Your task to perform on an android device: Open battery settings Image 0: 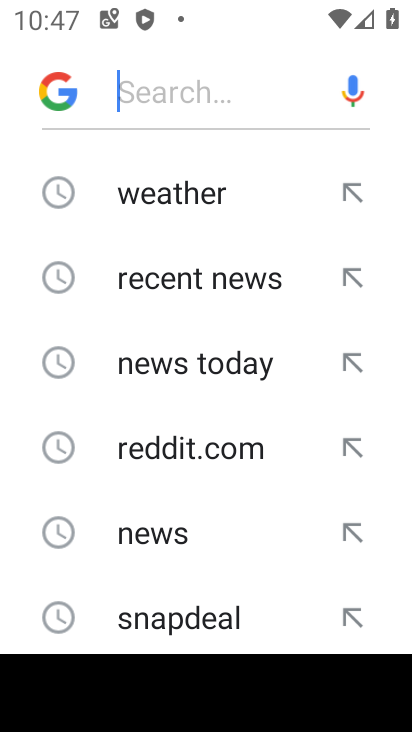
Step 0: press home button
Your task to perform on an android device: Open battery settings Image 1: 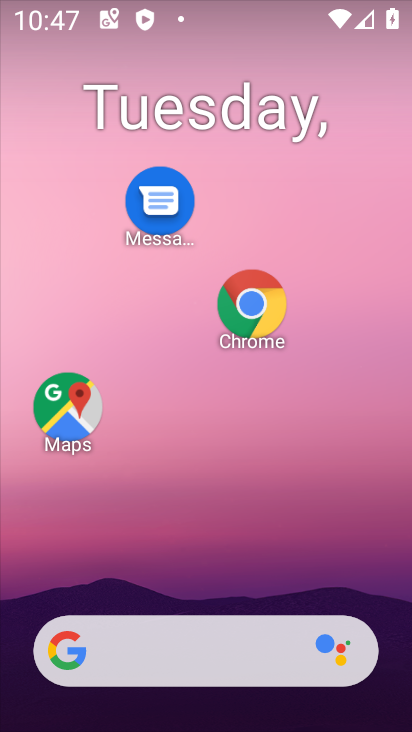
Step 1: drag from (255, 567) to (326, 244)
Your task to perform on an android device: Open battery settings Image 2: 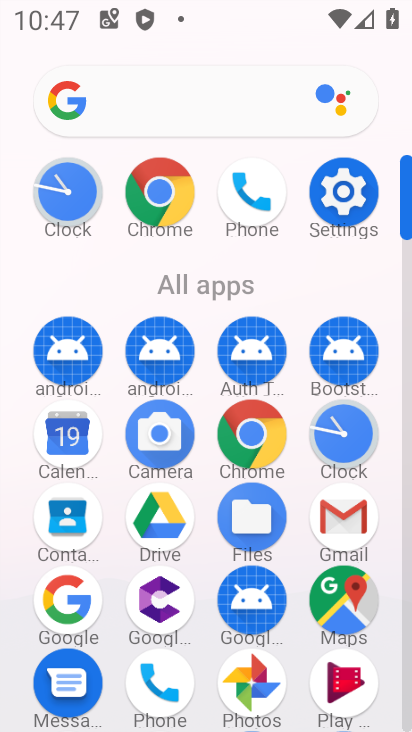
Step 2: click (346, 190)
Your task to perform on an android device: Open battery settings Image 3: 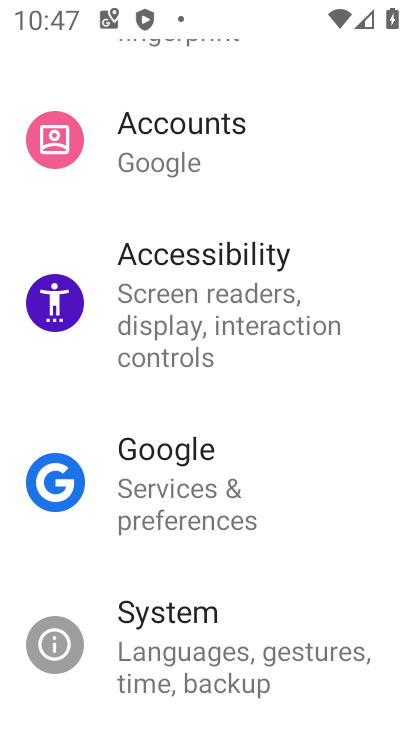
Step 3: drag from (241, 250) to (220, 708)
Your task to perform on an android device: Open battery settings Image 4: 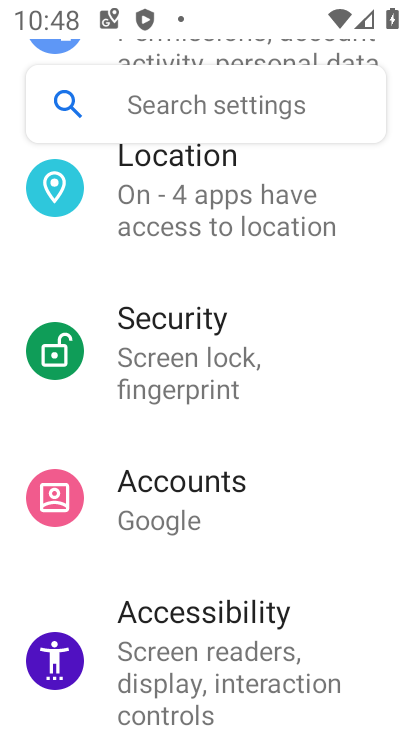
Step 4: drag from (252, 197) to (232, 720)
Your task to perform on an android device: Open battery settings Image 5: 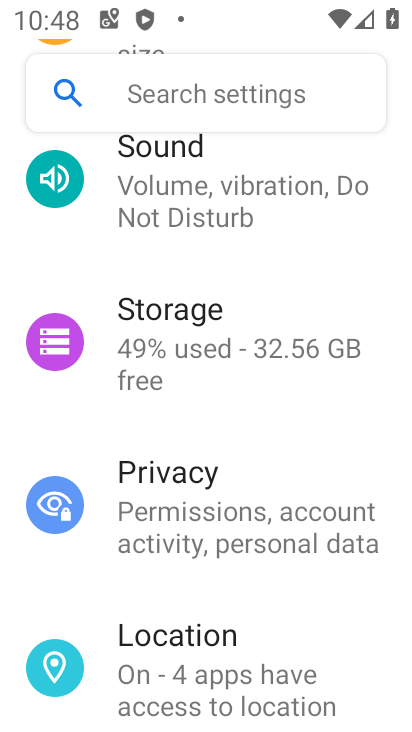
Step 5: drag from (261, 230) to (209, 717)
Your task to perform on an android device: Open battery settings Image 6: 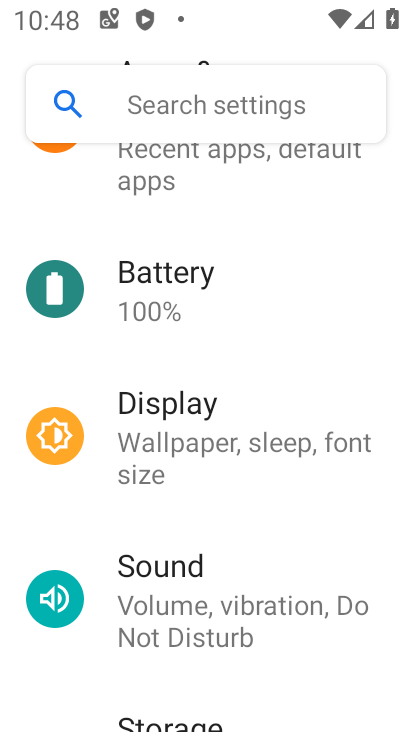
Step 6: drag from (236, 231) to (245, 664)
Your task to perform on an android device: Open battery settings Image 7: 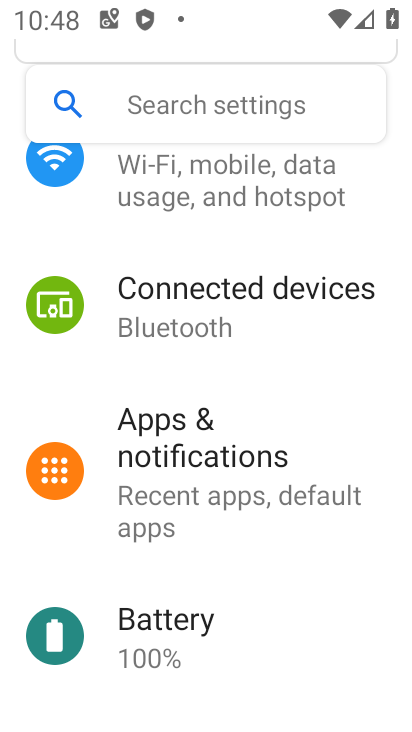
Step 7: click (193, 633)
Your task to perform on an android device: Open battery settings Image 8: 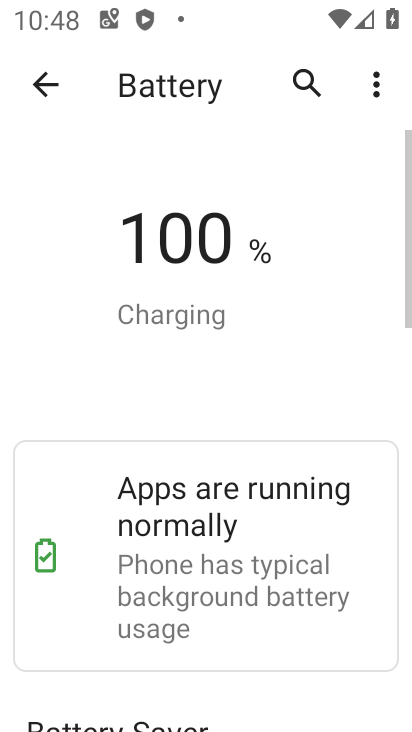
Step 8: task complete